Your task to perform on an android device: Open calendar and show me the fourth week of next month Image 0: 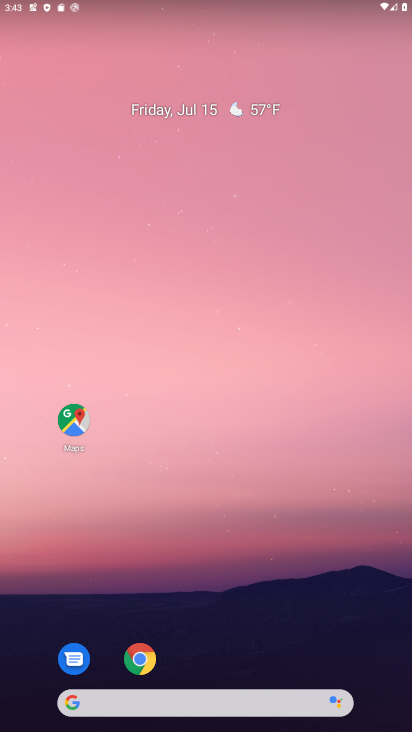
Step 0: drag from (201, 616) to (196, 338)
Your task to perform on an android device: Open calendar and show me the fourth week of next month Image 1: 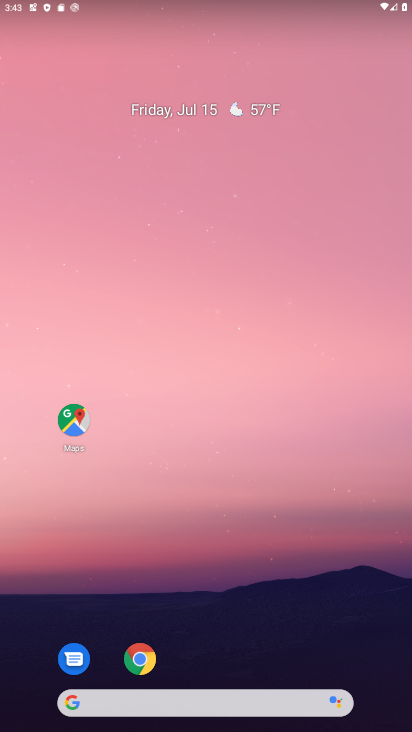
Step 1: drag from (237, 698) to (217, 271)
Your task to perform on an android device: Open calendar and show me the fourth week of next month Image 2: 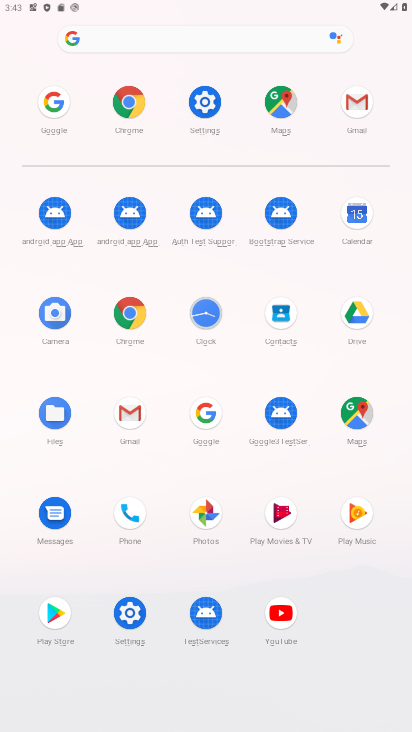
Step 2: click (358, 223)
Your task to perform on an android device: Open calendar and show me the fourth week of next month Image 3: 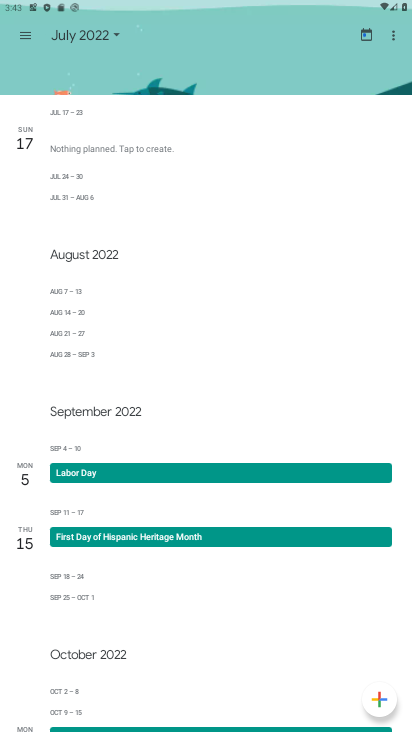
Step 3: click (97, 37)
Your task to perform on an android device: Open calendar and show me the fourth week of next month Image 4: 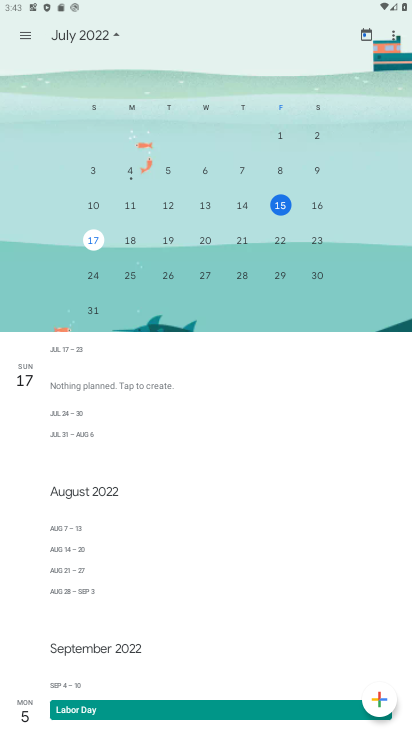
Step 4: task complete